Your task to perform on an android device: toggle notification dots Image 0: 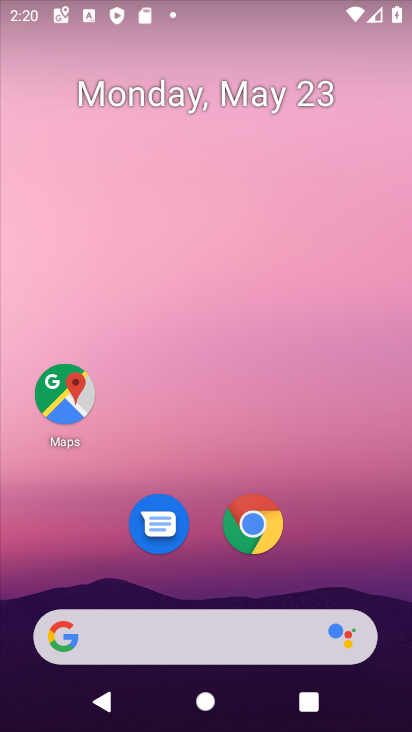
Step 0: drag from (214, 558) to (228, 27)
Your task to perform on an android device: toggle notification dots Image 1: 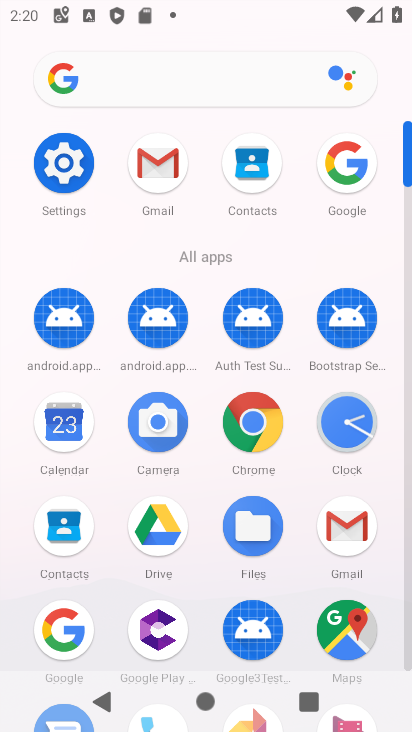
Step 1: click (60, 161)
Your task to perform on an android device: toggle notification dots Image 2: 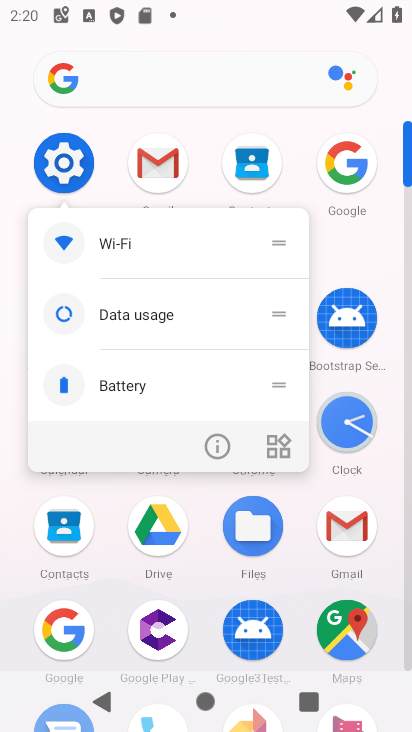
Step 2: click (60, 161)
Your task to perform on an android device: toggle notification dots Image 3: 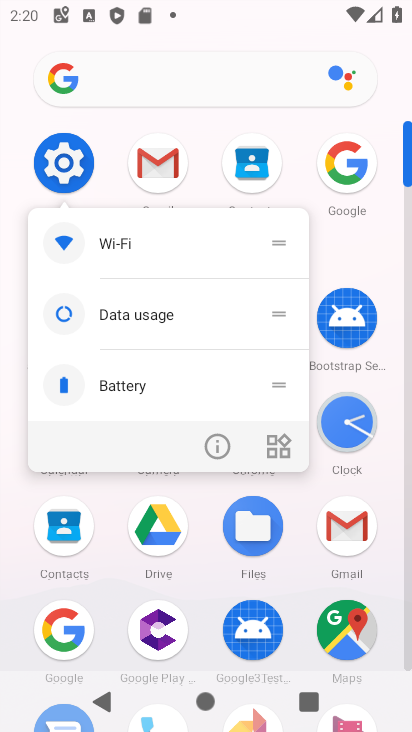
Step 3: click (64, 133)
Your task to perform on an android device: toggle notification dots Image 4: 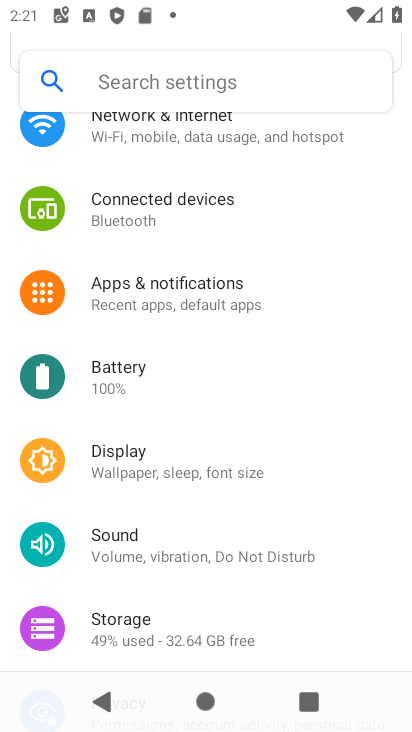
Step 4: click (191, 289)
Your task to perform on an android device: toggle notification dots Image 5: 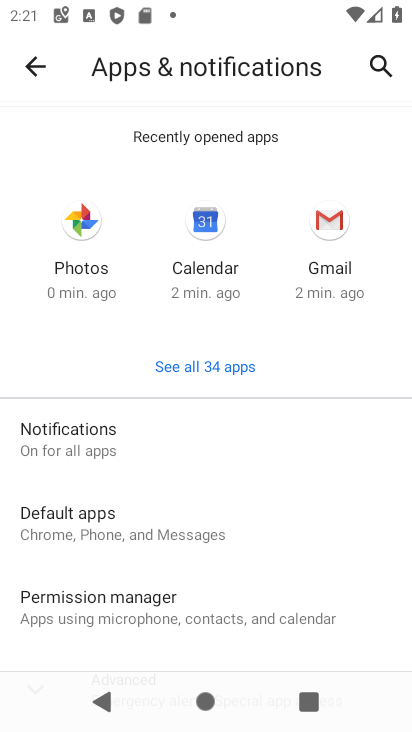
Step 5: click (176, 443)
Your task to perform on an android device: toggle notification dots Image 6: 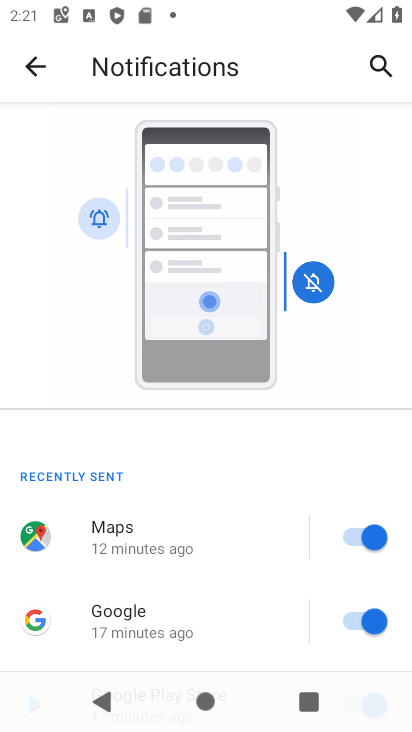
Step 6: drag from (214, 558) to (234, 124)
Your task to perform on an android device: toggle notification dots Image 7: 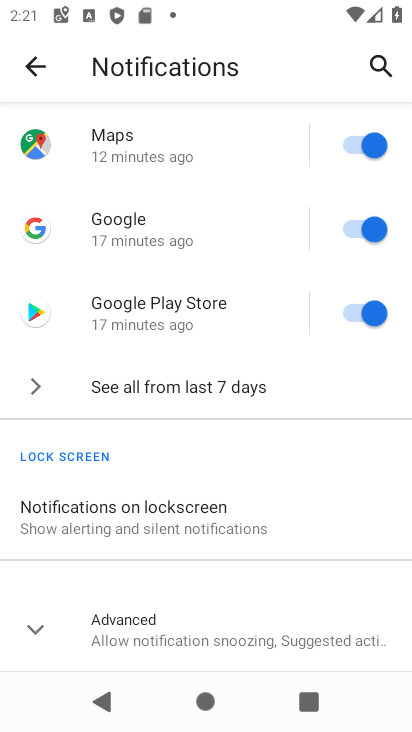
Step 7: click (34, 620)
Your task to perform on an android device: toggle notification dots Image 8: 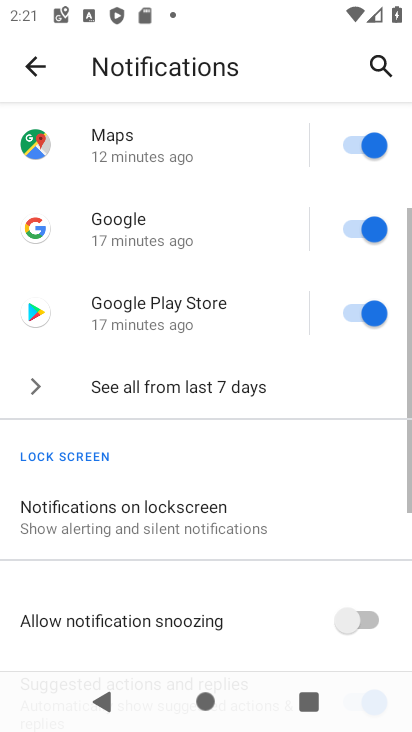
Step 8: drag from (202, 501) to (218, 163)
Your task to perform on an android device: toggle notification dots Image 9: 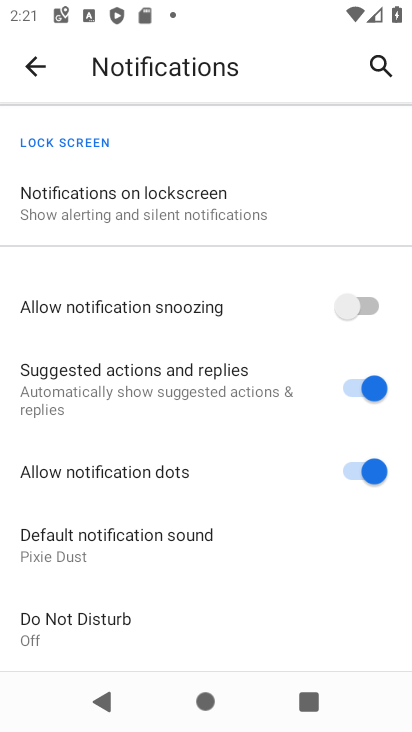
Step 9: click (355, 466)
Your task to perform on an android device: toggle notification dots Image 10: 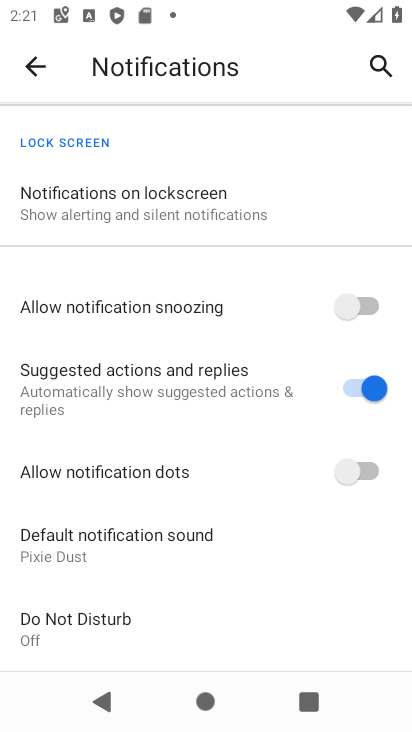
Step 10: task complete